Your task to perform on an android device: toggle improve location accuracy Image 0: 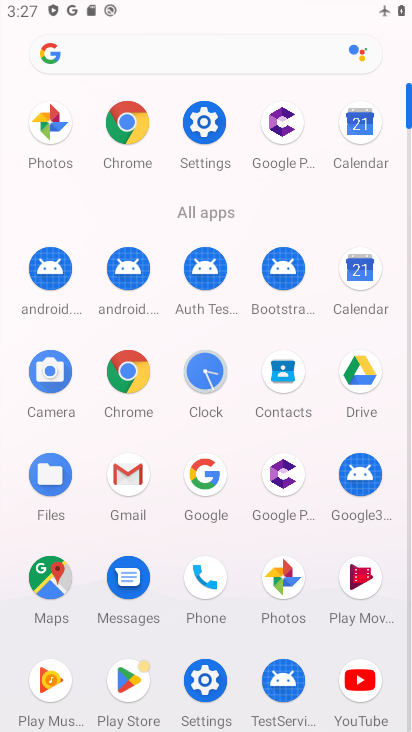
Step 0: click (199, 132)
Your task to perform on an android device: toggle improve location accuracy Image 1: 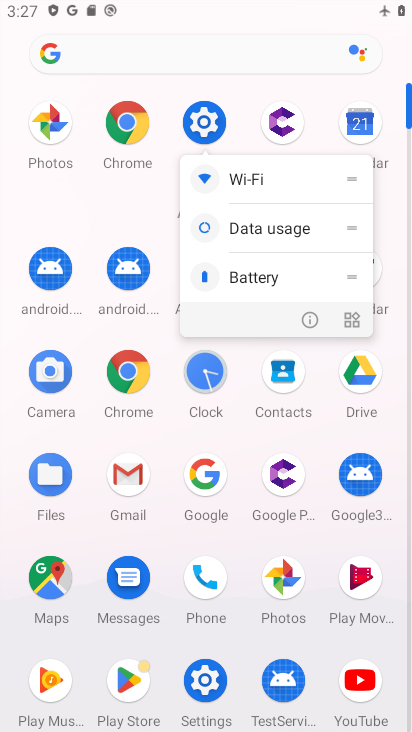
Step 1: click (203, 125)
Your task to perform on an android device: toggle improve location accuracy Image 2: 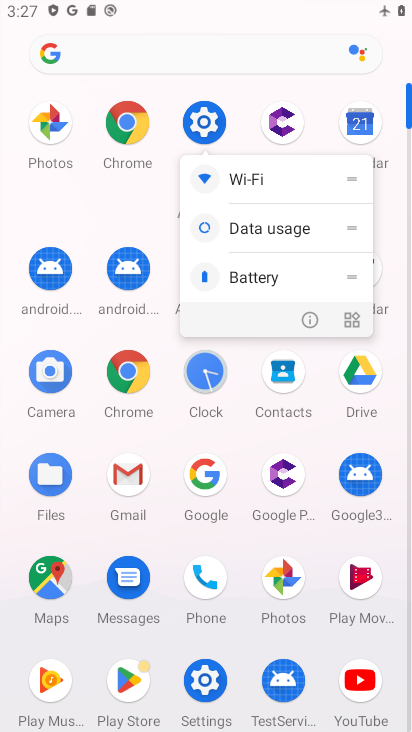
Step 2: click (203, 124)
Your task to perform on an android device: toggle improve location accuracy Image 3: 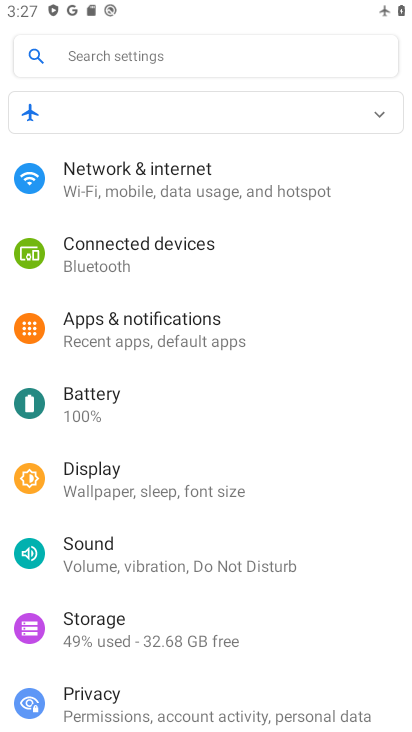
Step 3: drag from (169, 504) to (158, 197)
Your task to perform on an android device: toggle improve location accuracy Image 4: 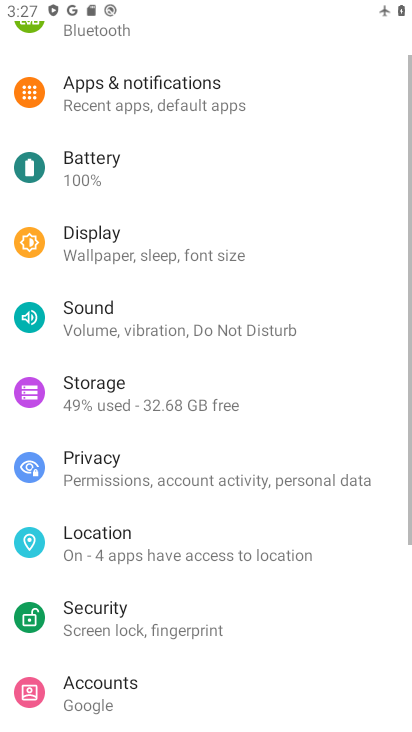
Step 4: drag from (172, 461) to (210, 194)
Your task to perform on an android device: toggle improve location accuracy Image 5: 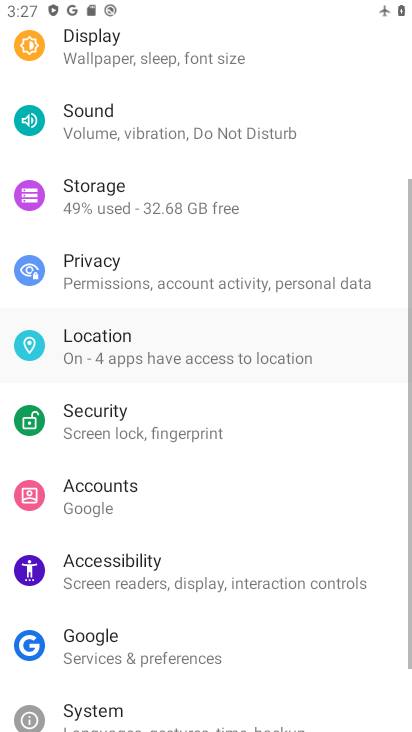
Step 5: drag from (185, 515) to (185, 202)
Your task to perform on an android device: toggle improve location accuracy Image 6: 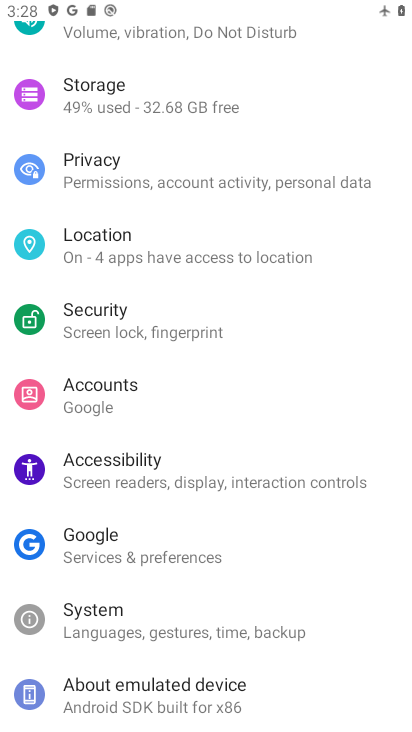
Step 6: click (117, 245)
Your task to perform on an android device: toggle improve location accuracy Image 7: 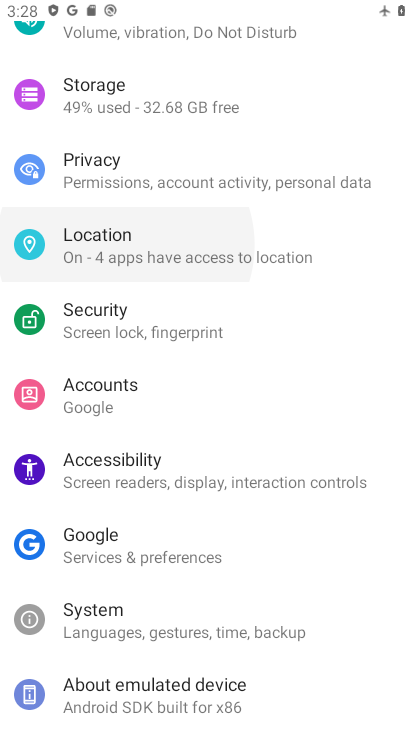
Step 7: click (118, 242)
Your task to perform on an android device: toggle improve location accuracy Image 8: 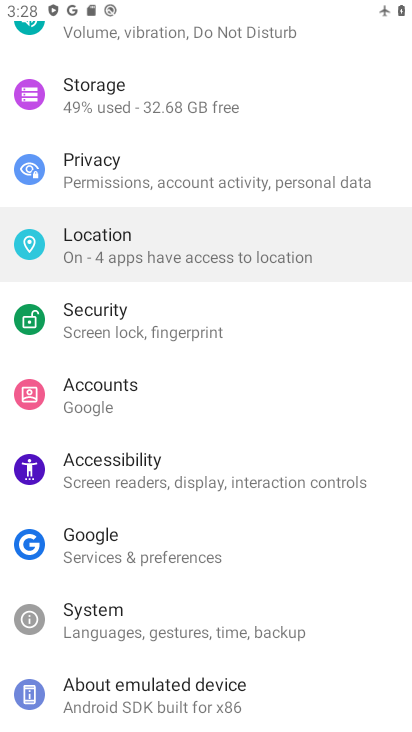
Step 8: click (122, 231)
Your task to perform on an android device: toggle improve location accuracy Image 9: 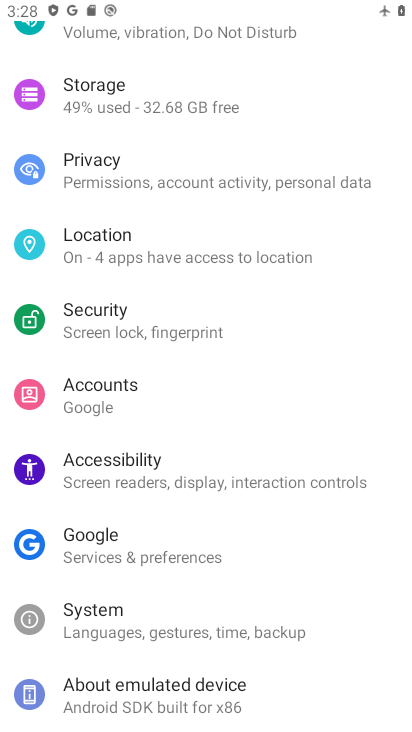
Step 9: click (120, 233)
Your task to perform on an android device: toggle improve location accuracy Image 10: 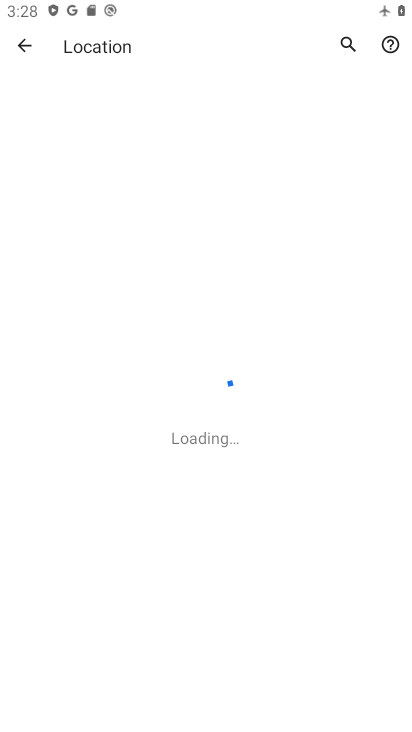
Step 10: click (21, 44)
Your task to perform on an android device: toggle improve location accuracy Image 11: 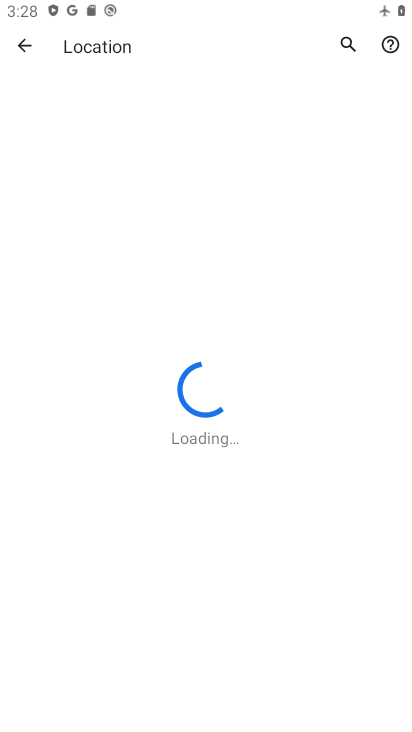
Step 11: click (22, 43)
Your task to perform on an android device: toggle improve location accuracy Image 12: 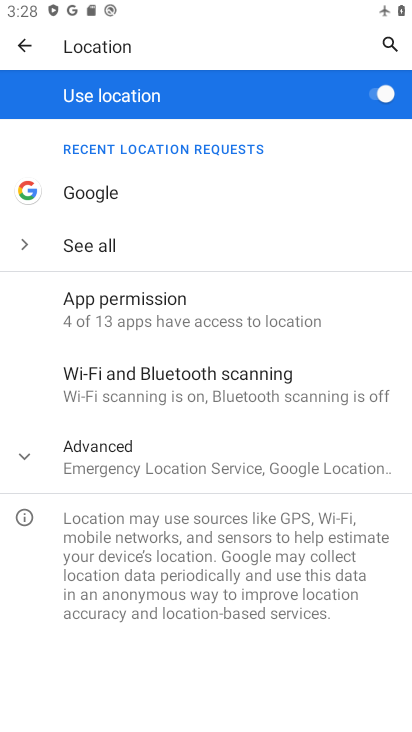
Step 12: click (110, 450)
Your task to perform on an android device: toggle improve location accuracy Image 13: 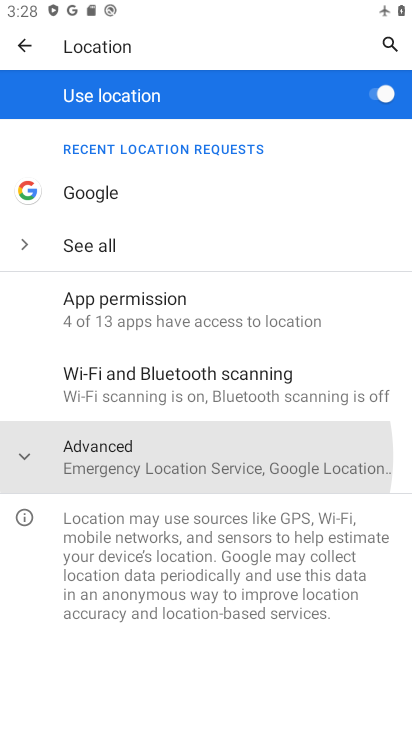
Step 13: click (110, 451)
Your task to perform on an android device: toggle improve location accuracy Image 14: 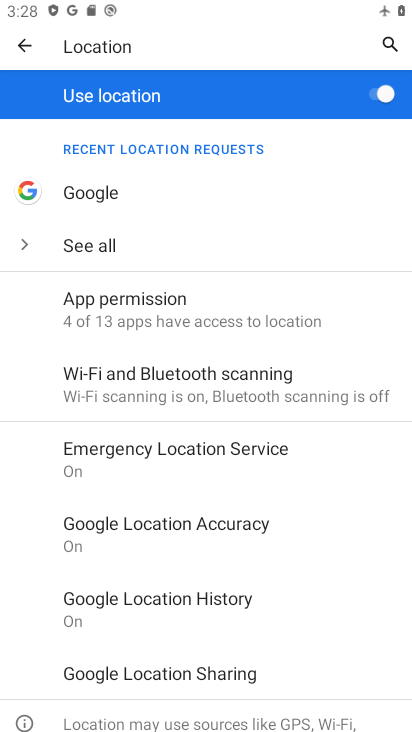
Step 14: click (110, 522)
Your task to perform on an android device: toggle improve location accuracy Image 15: 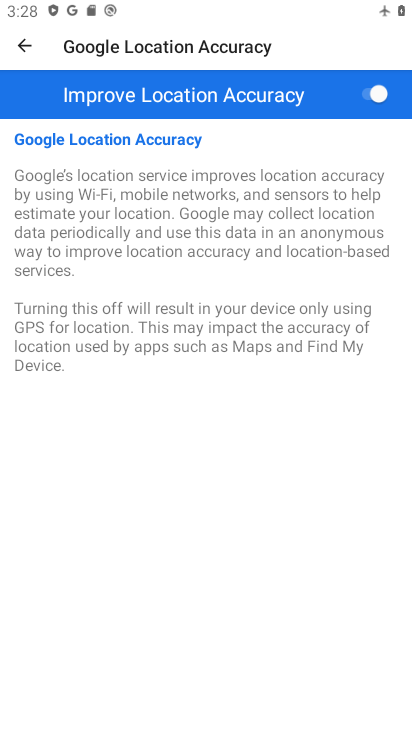
Step 15: click (383, 98)
Your task to perform on an android device: toggle improve location accuracy Image 16: 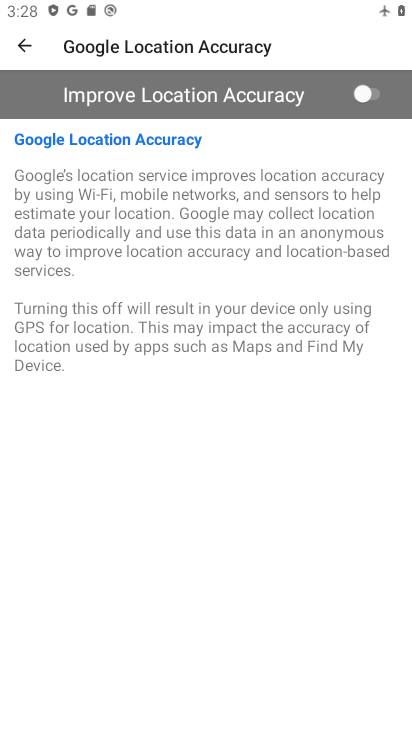
Step 16: task complete